Your task to perform on an android device: move an email to a new category in the gmail app Image 0: 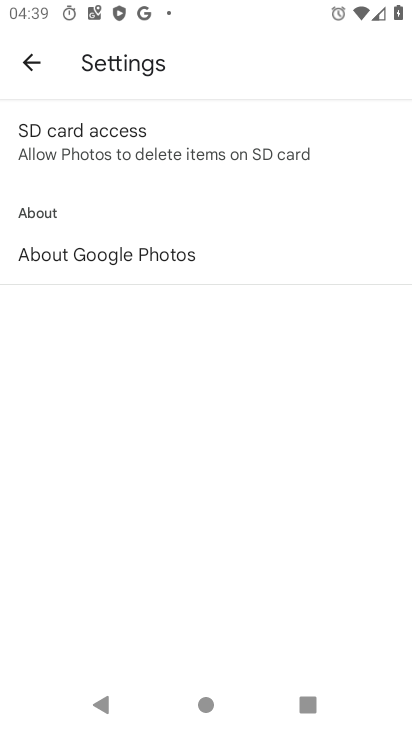
Step 0: press home button
Your task to perform on an android device: move an email to a new category in the gmail app Image 1: 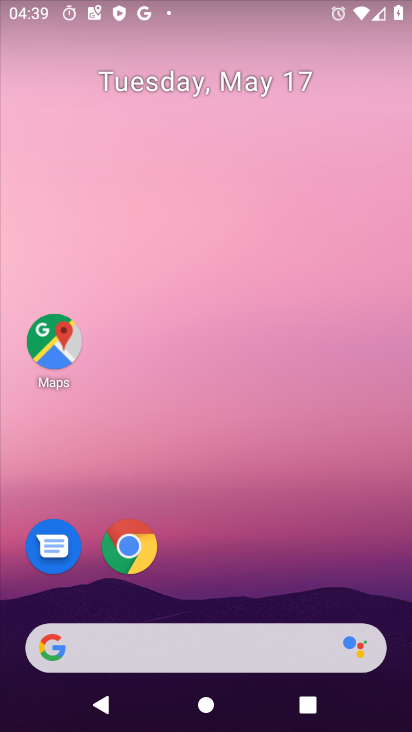
Step 1: drag from (408, 641) to (389, 369)
Your task to perform on an android device: move an email to a new category in the gmail app Image 2: 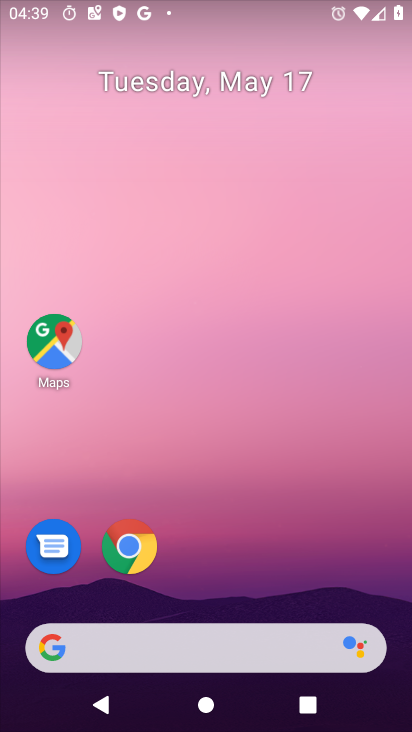
Step 2: drag from (394, 666) to (386, 373)
Your task to perform on an android device: move an email to a new category in the gmail app Image 3: 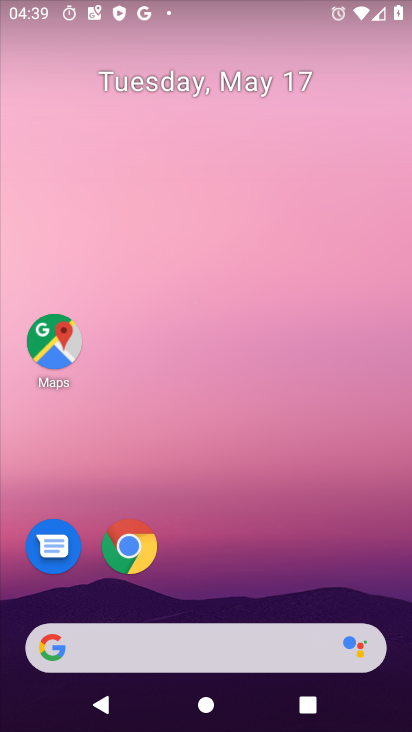
Step 3: drag from (393, 671) to (363, 384)
Your task to perform on an android device: move an email to a new category in the gmail app Image 4: 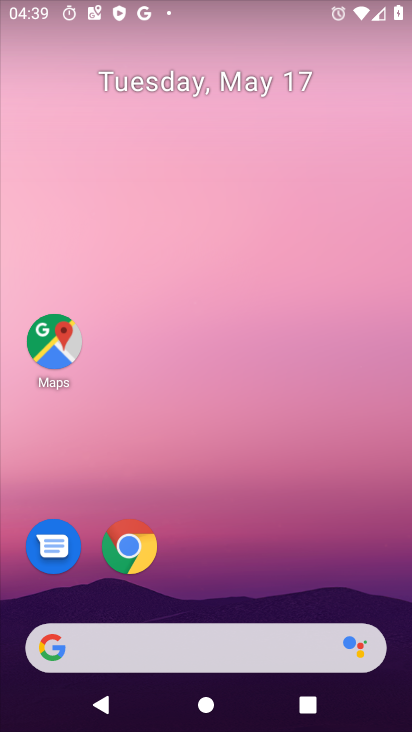
Step 4: drag from (402, 624) to (370, 301)
Your task to perform on an android device: move an email to a new category in the gmail app Image 5: 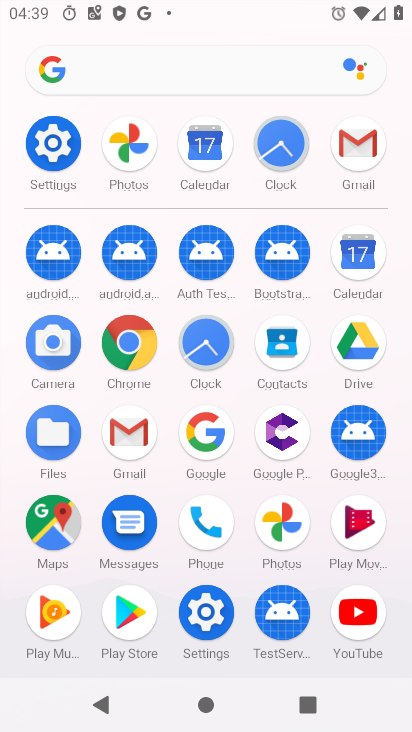
Step 5: click (114, 434)
Your task to perform on an android device: move an email to a new category in the gmail app Image 6: 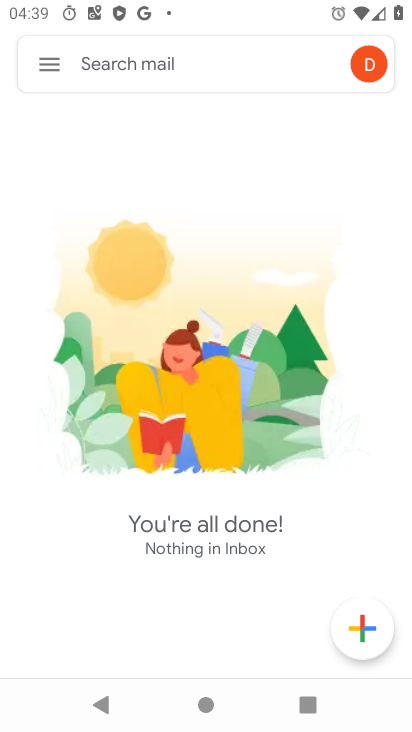
Step 6: click (43, 62)
Your task to perform on an android device: move an email to a new category in the gmail app Image 7: 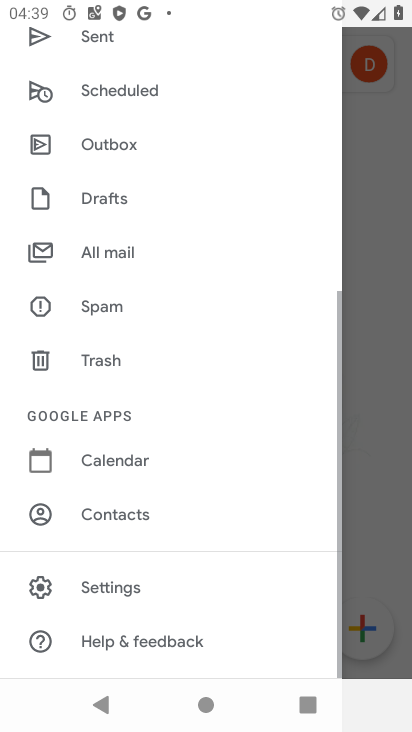
Step 7: drag from (235, 102) to (246, 408)
Your task to perform on an android device: move an email to a new category in the gmail app Image 8: 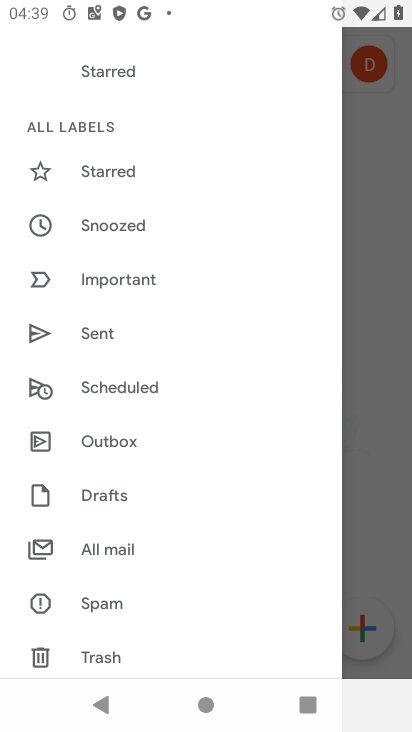
Step 8: drag from (224, 148) to (254, 464)
Your task to perform on an android device: move an email to a new category in the gmail app Image 9: 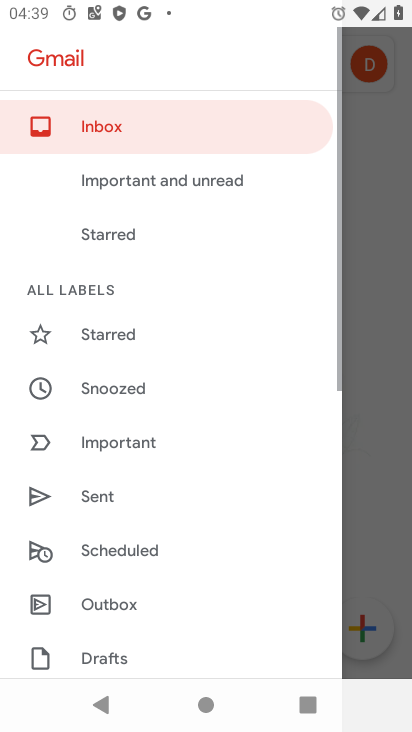
Step 9: click (127, 132)
Your task to perform on an android device: move an email to a new category in the gmail app Image 10: 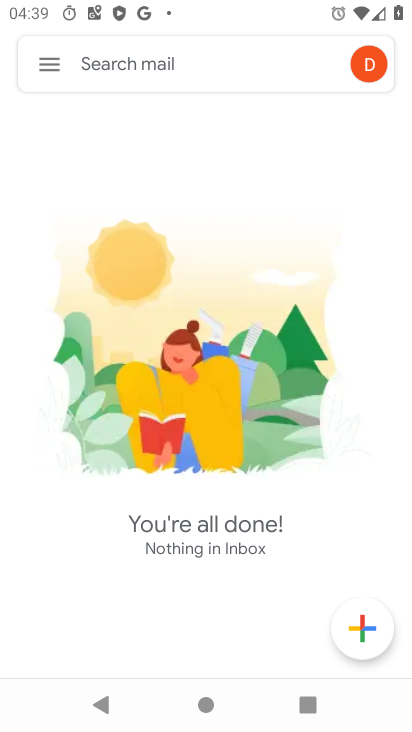
Step 10: task complete